Your task to perform on an android device: Open calendar and show me the third week of next month Image 0: 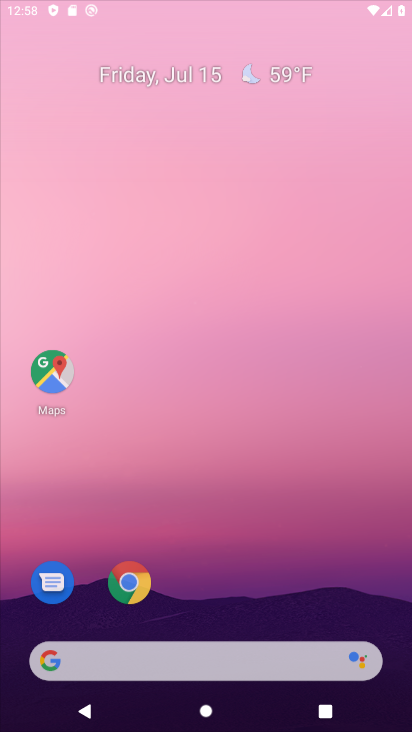
Step 0: click (231, 137)
Your task to perform on an android device: Open calendar and show me the third week of next month Image 1: 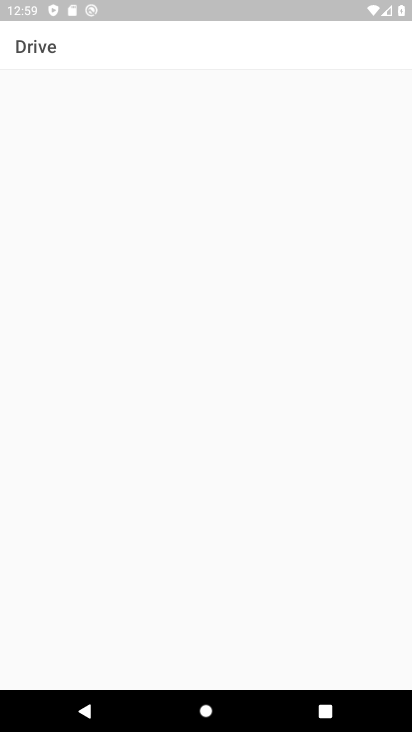
Step 1: press home button
Your task to perform on an android device: Open calendar and show me the third week of next month Image 2: 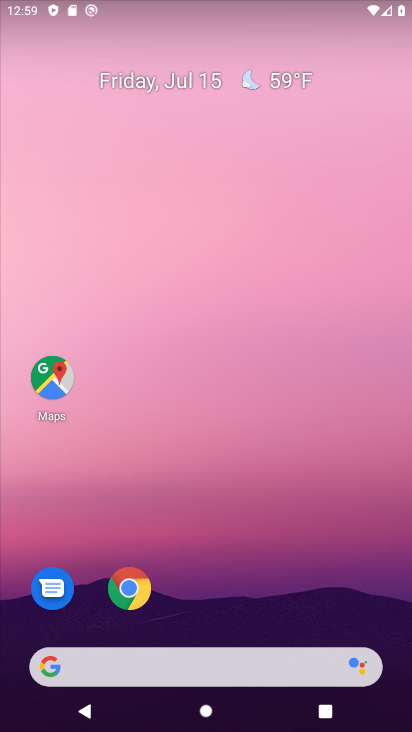
Step 2: drag from (231, 618) to (251, 24)
Your task to perform on an android device: Open calendar and show me the third week of next month Image 3: 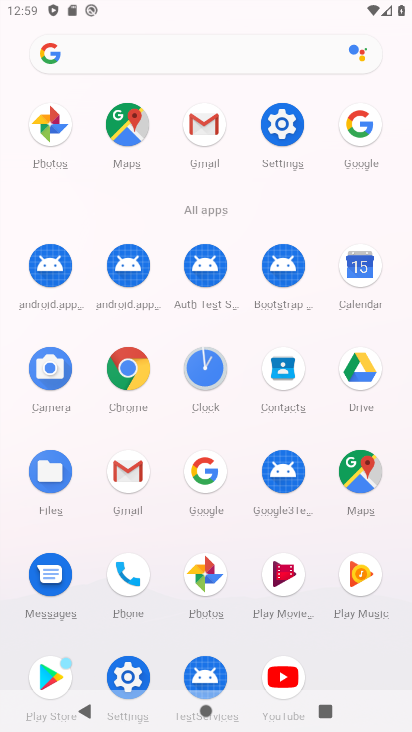
Step 3: click (359, 268)
Your task to perform on an android device: Open calendar and show me the third week of next month Image 4: 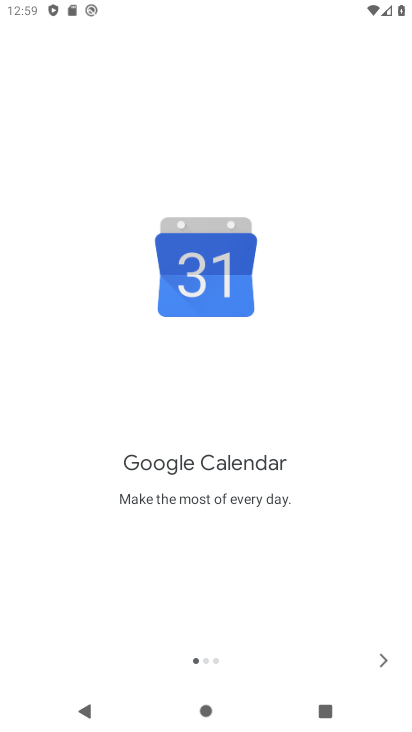
Step 4: click (376, 657)
Your task to perform on an android device: Open calendar and show me the third week of next month Image 5: 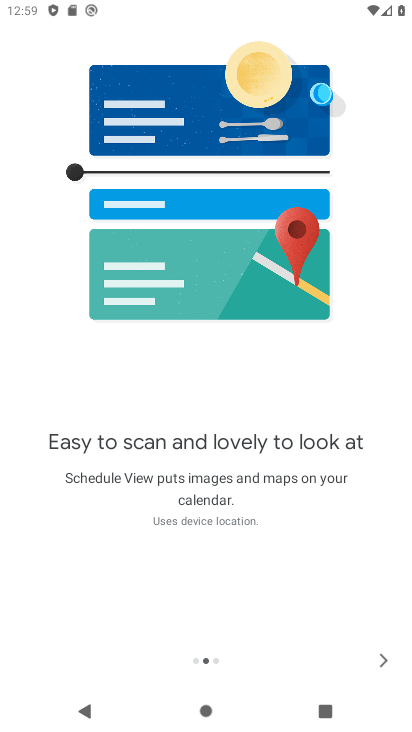
Step 5: click (383, 657)
Your task to perform on an android device: Open calendar and show me the third week of next month Image 6: 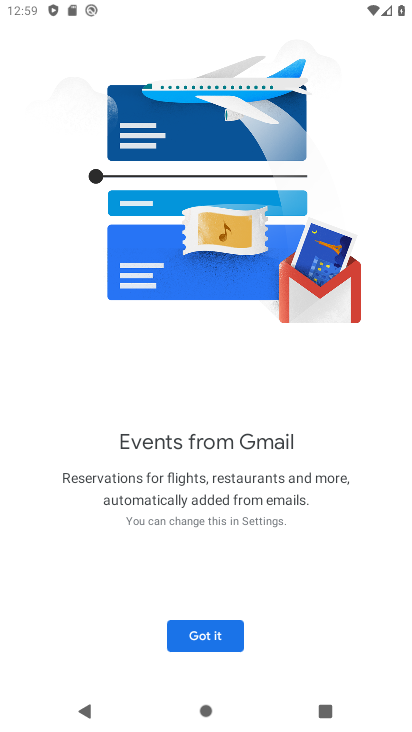
Step 6: click (196, 632)
Your task to perform on an android device: Open calendar and show me the third week of next month Image 7: 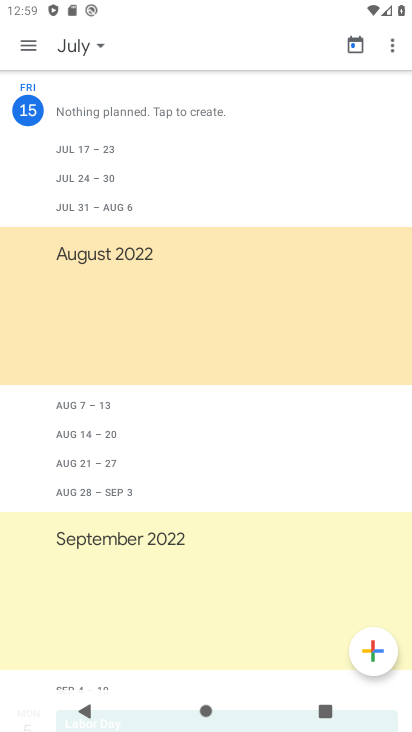
Step 7: click (97, 47)
Your task to perform on an android device: Open calendar and show me the third week of next month Image 8: 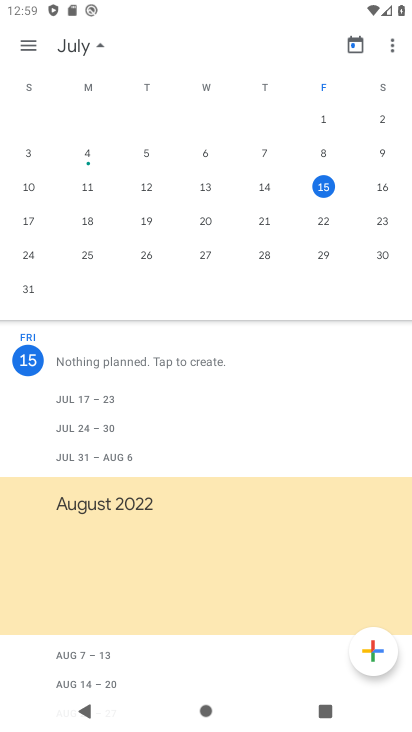
Step 8: drag from (395, 292) to (46, 236)
Your task to perform on an android device: Open calendar and show me the third week of next month Image 9: 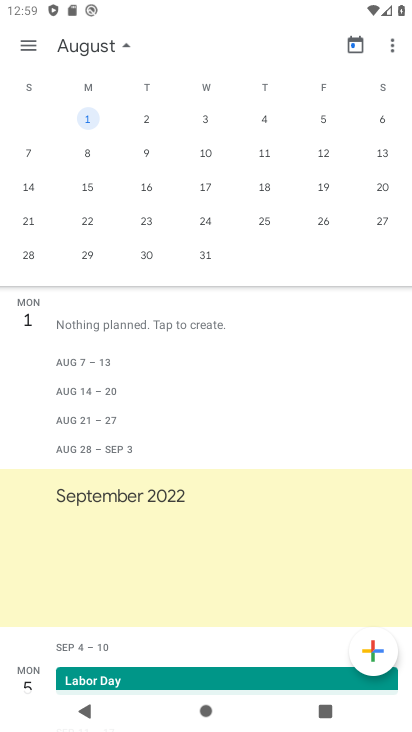
Step 9: click (200, 186)
Your task to perform on an android device: Open calendar and show me the third week of next month Image 10: 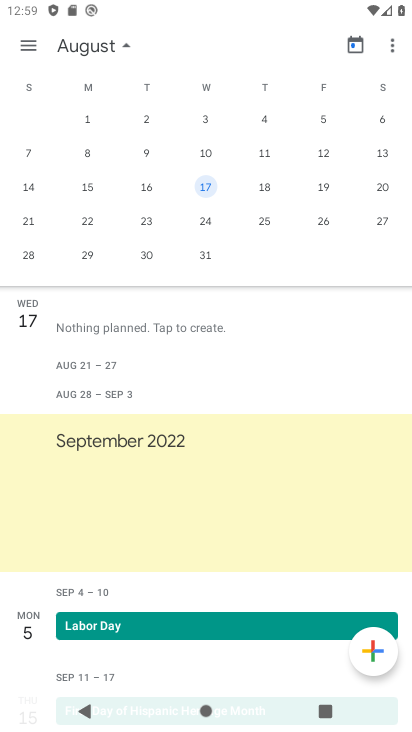
Step 10: task complete